Your task to perform on an android device: open a bookmark in the chrome app Image 0: 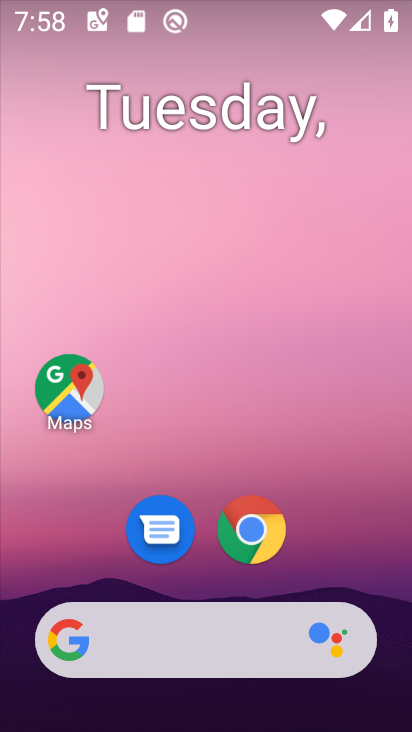
Step 0: click (248, 531)
Your task to perform on an android device: open a bookmark in the chrome app Image 1: 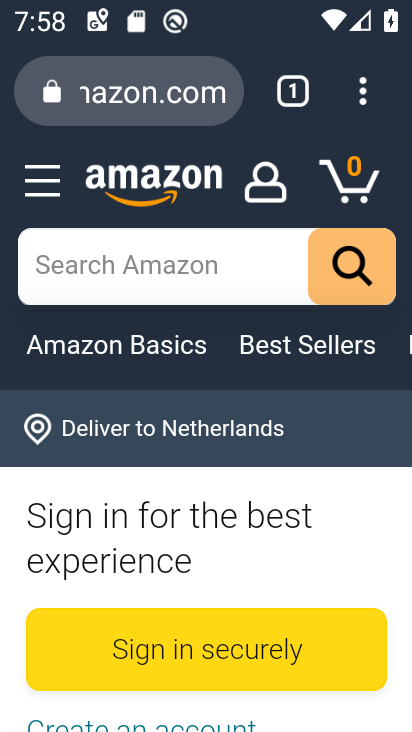
Step 1: drag from (366, 99) to (174, 353)
Your task to perform on an android device: open a bookmark in the chrome app Image 2: 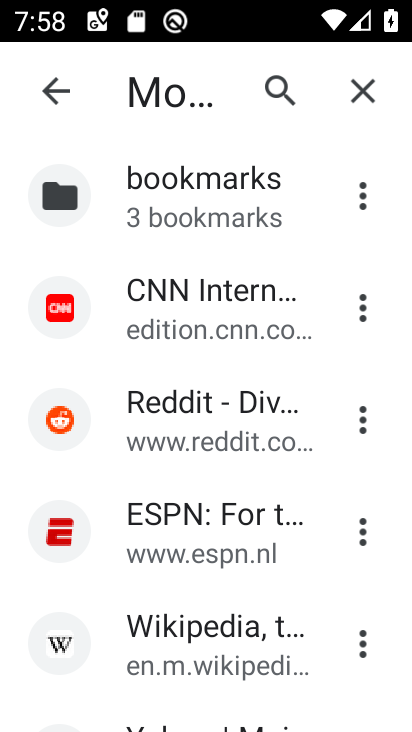
Step 2: drag from (202, 650) to (246, 218)
Your task to perform on an android device: open a bookmark in the chrome app Image 3: 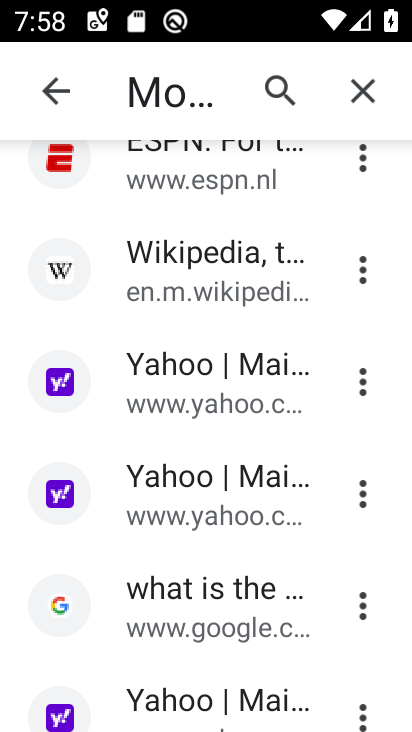
Step 3: click (184, 385)
Your task to perform on an android device: open a bookmark in the chrome app Image 4: 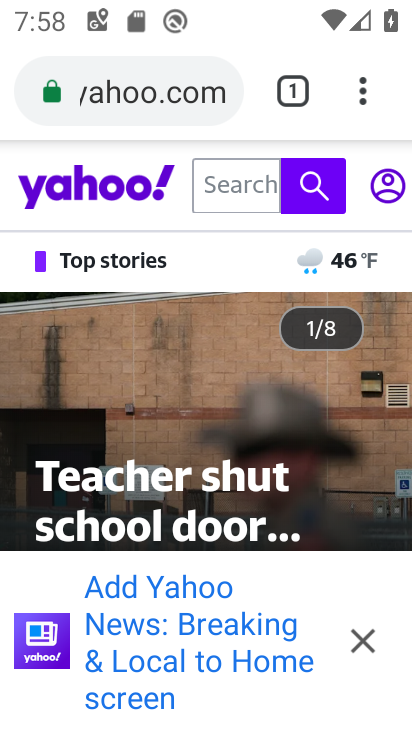
Step 4: task complete